Your task to perform on an android device: turn pop-ups off in chrome Image 0: 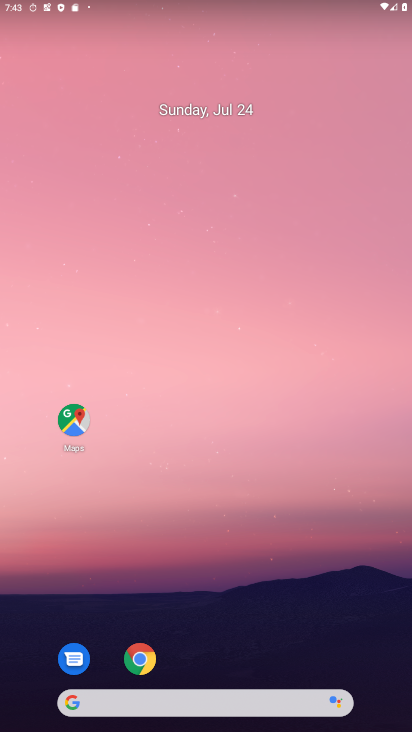
Step 0: drag from (255, 645) to (135, 130)
Your task to perform on an android device: turn pop-ups off in chrome Image 1: 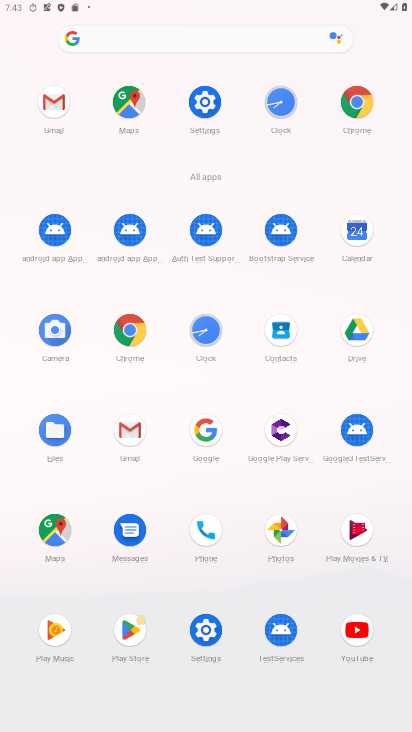
Step 1: click (130, 330)
Your task to perform on an android device: turn pop-ups off in chrome Image 2: 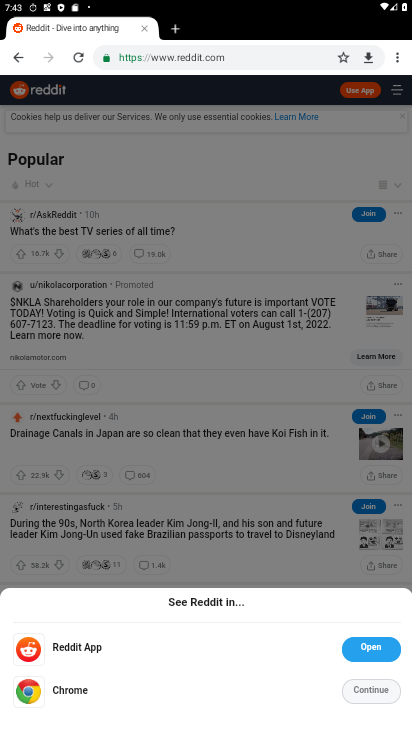
Step 2: drag from (397, 54) to (282, 372)
Your task to perform on an android device: turn pop-ups off in chrome Image 3: 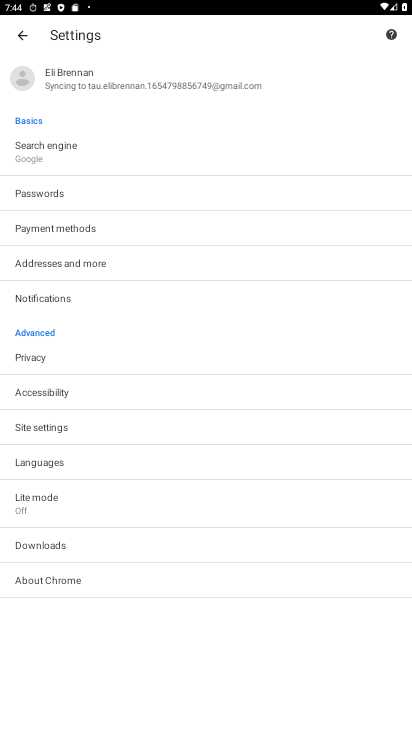
Step 3: click (33, 431)
Your task to perform on an android device: turn pop-ups off in chrome Image 4: 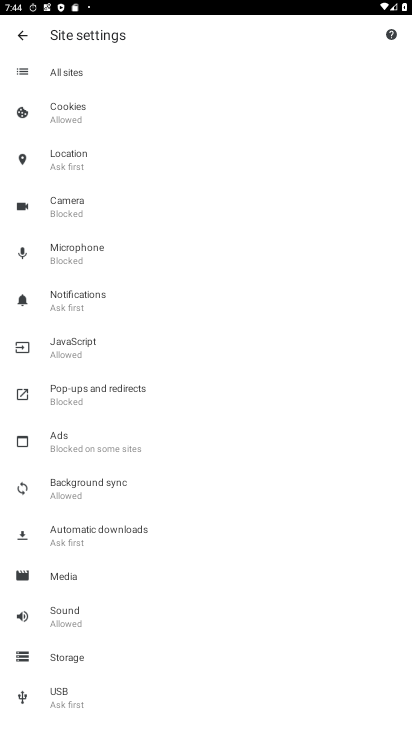
Step 4: click (74, 410)
Your task to perform on an android device: turn pop-ups off in chrome Image 5: 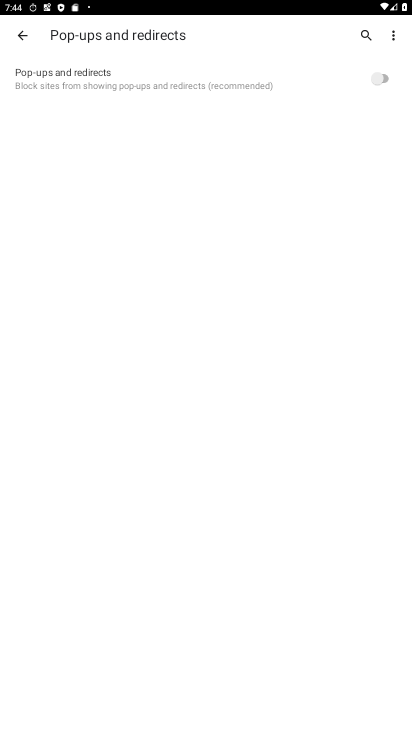
Step 5: task complete